Your task to perform on an android device: Open Android settings Image 0: 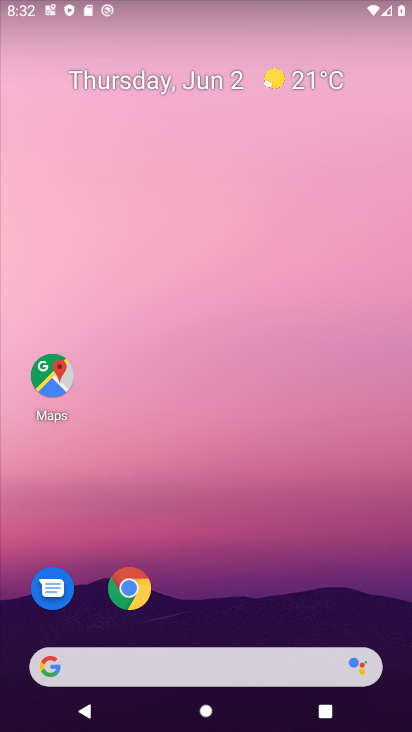
Step 0: drag from (169, 667) to (147, 42)
Your task to perform on an android device: Open Android settings Image 1: 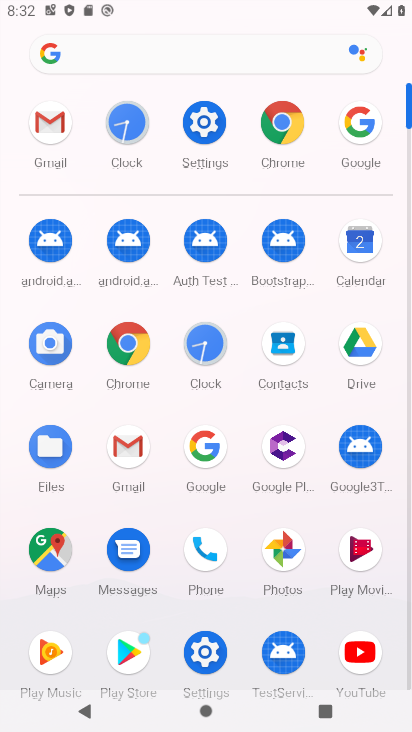
Step 1: click (191, 134)
Your task to perform on an android device: Open Android settings Image 2: 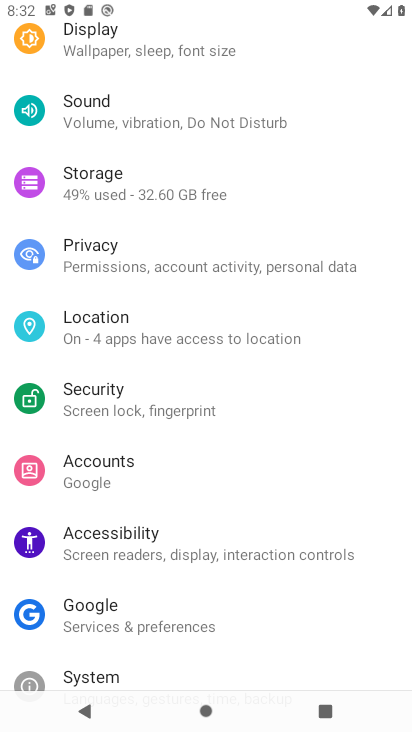
Step 2: drag from (158, 601) to (194, 90)
Your task to perform on an android device: Open Android settings Image 3: 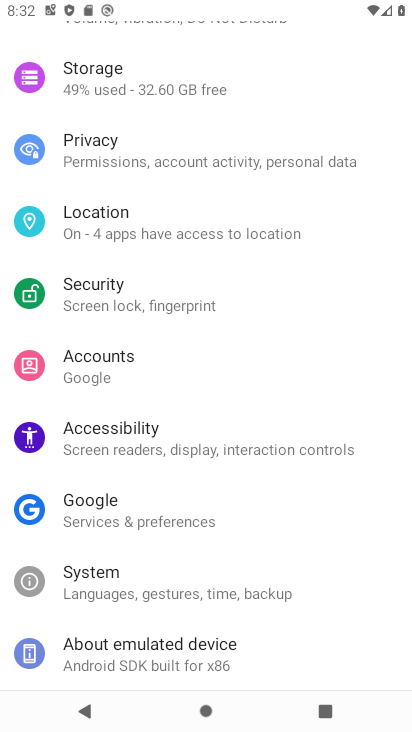
Step 3: click (210, 633)
Your task to perform on an android device: Open Android settings Image 4: 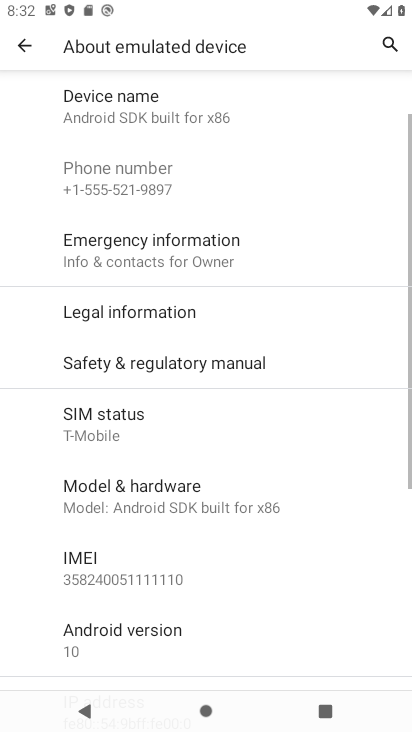
Step 4: task complete